Your task to perform on an android device: Open accessibility settings Image 0: 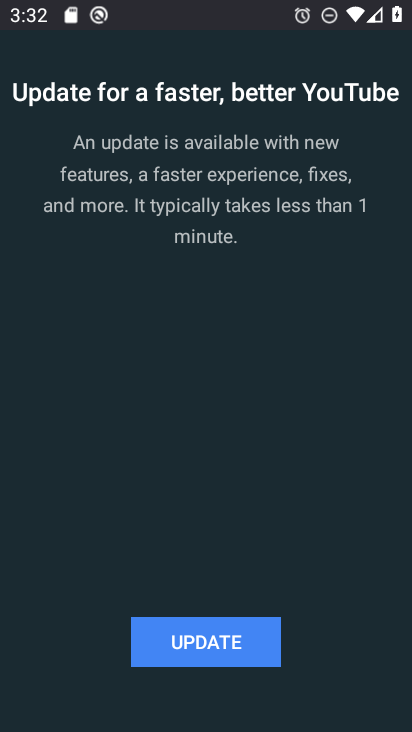
Step 0: press home button
Your task to perform on an android device: Open accessibility settings Image 1: 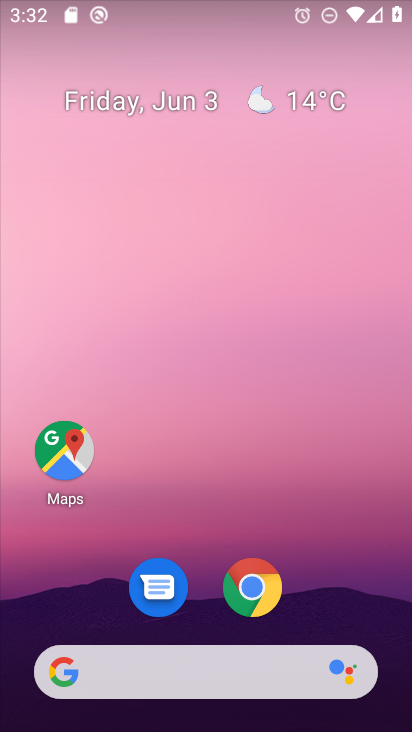
Step 1: drag from (206, 726) to (231, 113)
Your task to perform on an android device: Open accessibility settings Image 2: 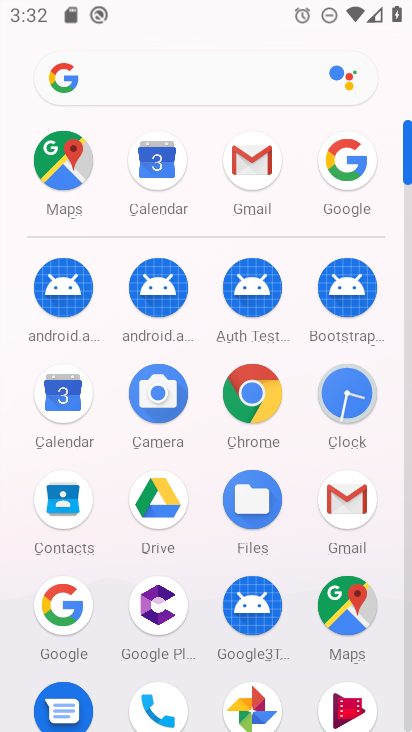
Step 2: drag from (210, 676) to (222, 421)
Your task to perform on an android device: Open accessibility settings Image 3: 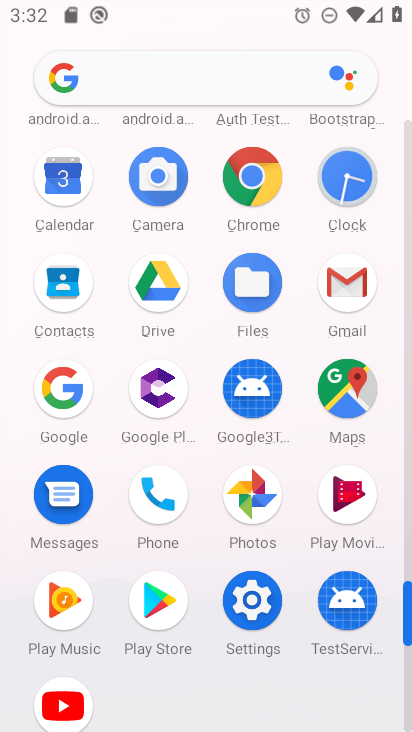
Step 3: click (260, 598)
Your task to perform on an android device: Open accessibility settings Image 4: 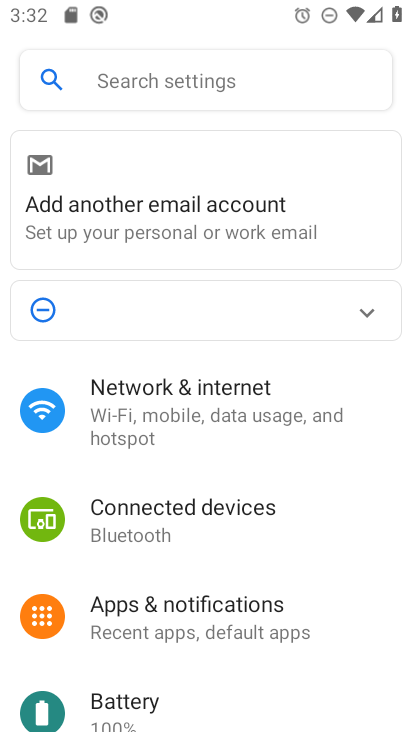
Step 4: drag from (157, 696) to (161, 322)
Your task to perform on an android device: Open accessibility settings Image 5: 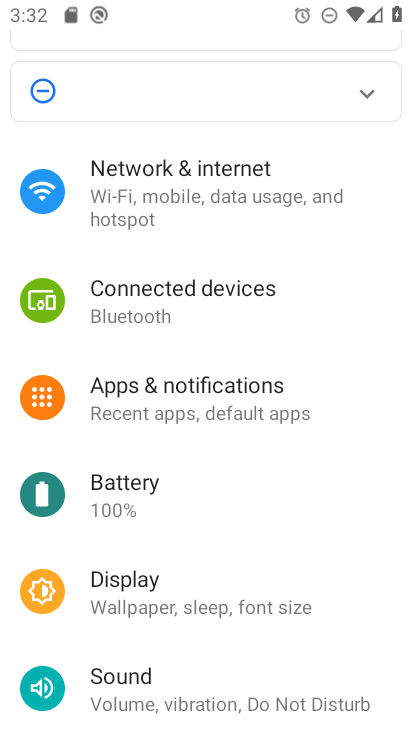
Step 5: drag from (210, 680) to (233, 323)
Your task to perform on an android device: Open accessibility settings Image 6: 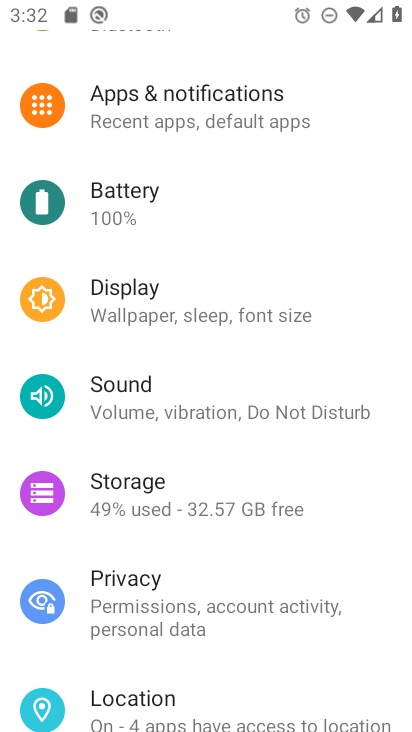
Step 6: drag from (169, 657) to (215, 290)
Your task to perform on an android device: Open accessibility settings Image 7: 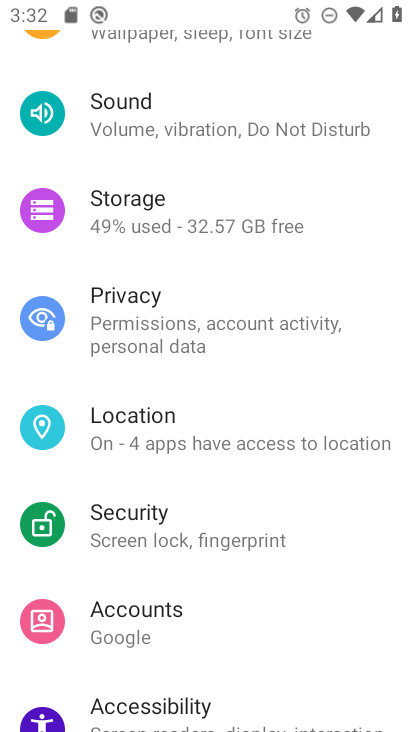
Step 7: click (150, 699)
Your task to perform on an android device: Open accessibility settings Image 8: 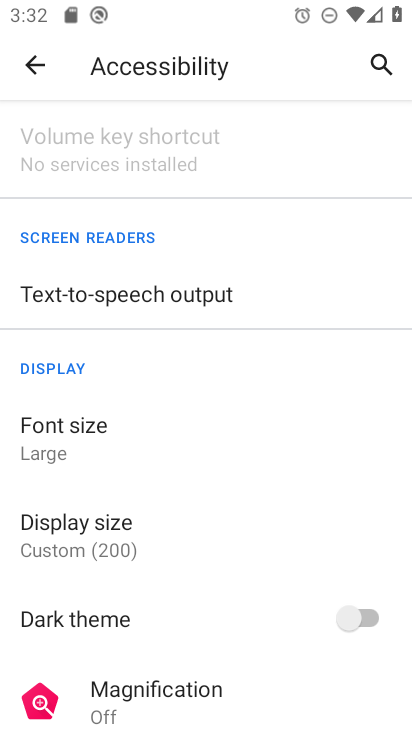
Step 8: task complete